Your task to perform on an android device: Toggle the flashlight Image 0: 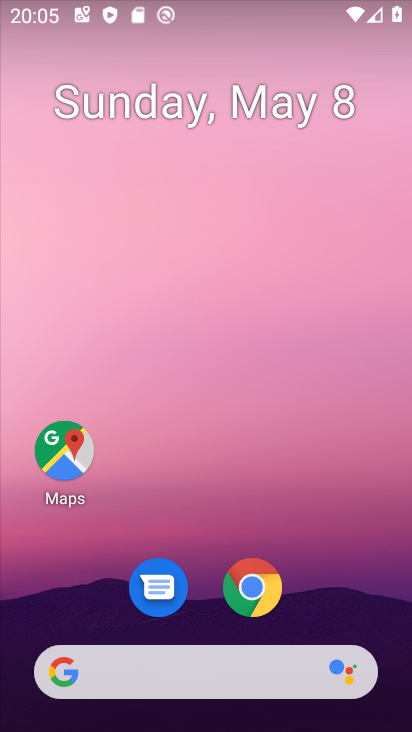
Step 0: drag from (314, 578) to (220, 37)
Your task to perform on an android device: Toggle the flashlight Image 1: 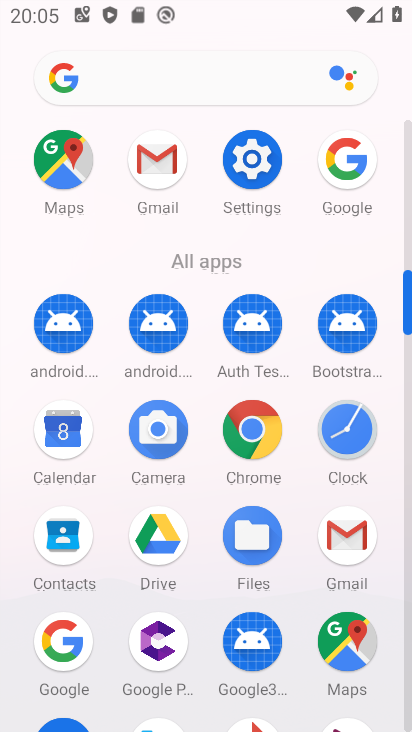
Step 1: click (250, 161)
Your task to perform on an android device: Toggle the flashlight Image 2: 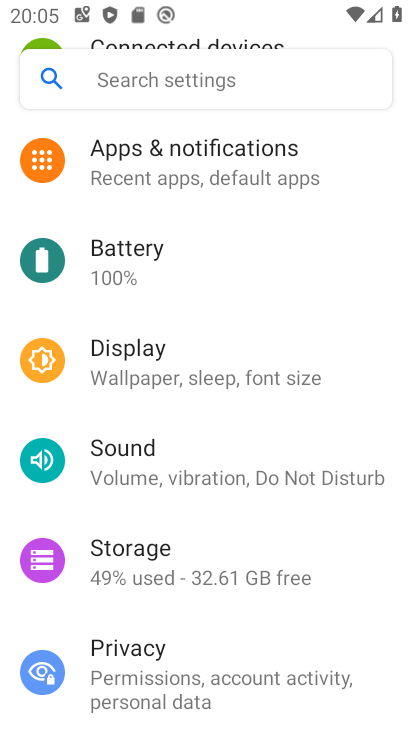
Step 2: click (103, 352)
Your task to perform on an android device: Toggle the flashlight Image 3: 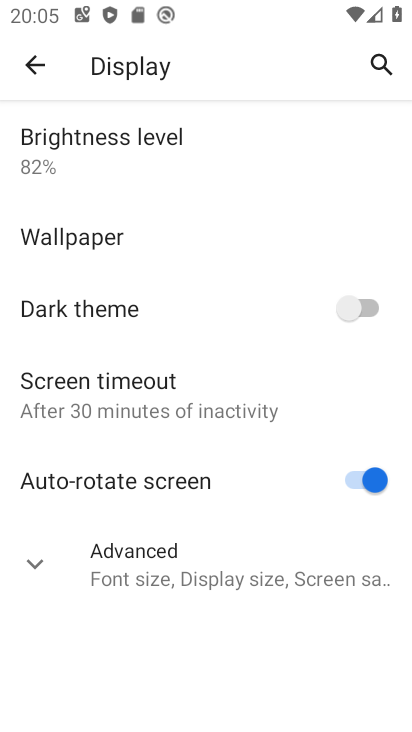
Step 3: press back button
Your task to perform on an android device: Toggle the flashlight Image 4: 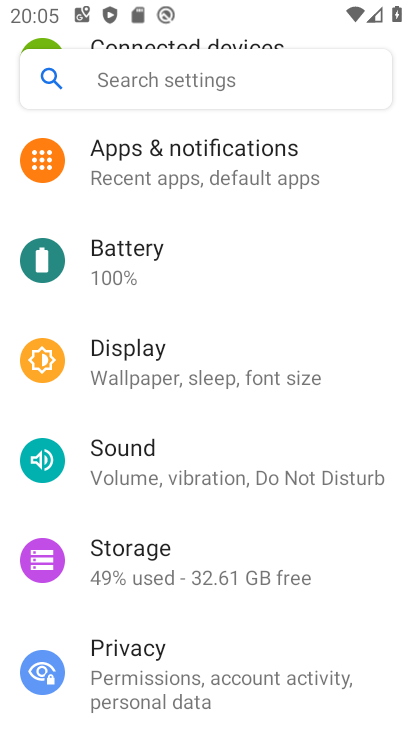
Step 4: drag from (137, 456) to (154, 397)
Your task to perform on an android device: Toggle the flashlight Image 5: 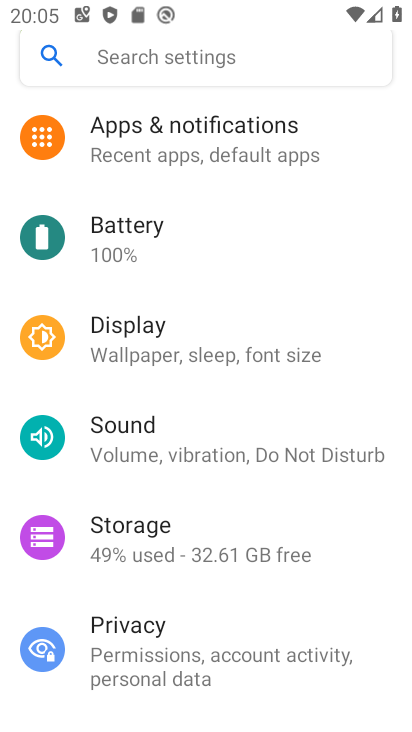
Step 5: drag from (223, 405) to (261, 331)
Your task to perform on an android device: Toggle the flashlight Image 6: 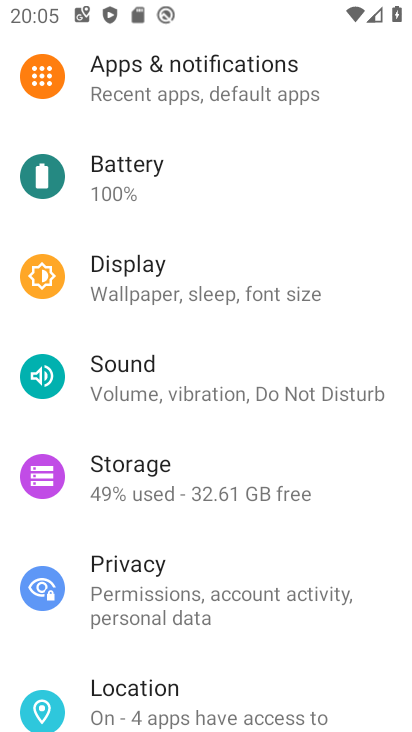
Step 6: drag from (216, 444) to (263, 357)
Your task to perform on an android device: Toggle the flashlight Image 7: 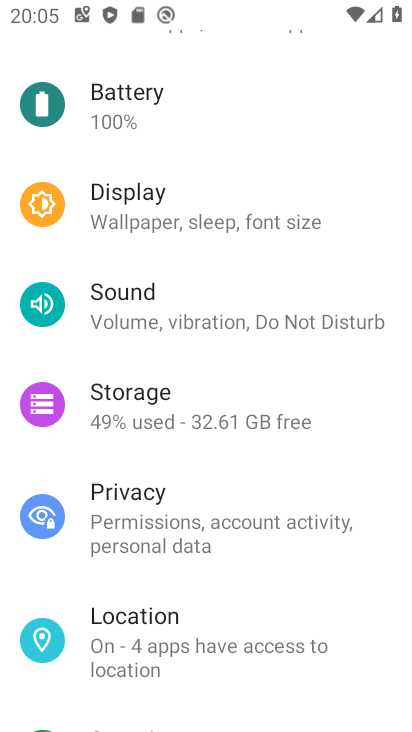
Step 7: drag from (202, 519) to (293, 358)
Your task to perform on an android device: Toggle the flashlight Image 8: 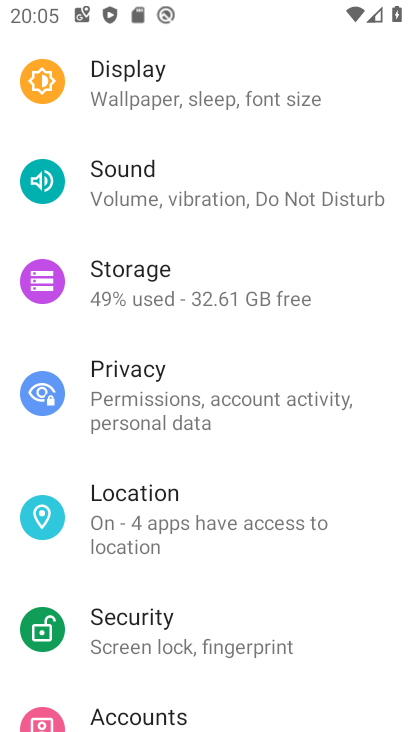
Step 8: drag from (222, 499) to (274, 354)
Your task to perform on an android device: Toggle the flashlight Image 9: 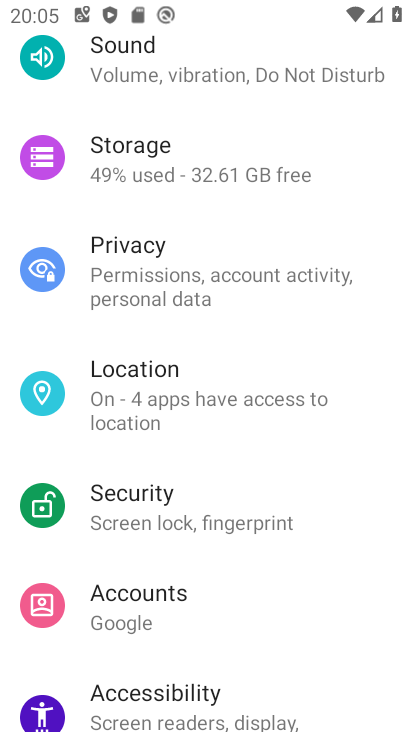
Step 9: drag from (193, 586) to (285, 387)
Your task to perform on an android device: Toggle the flashlight Image 10: 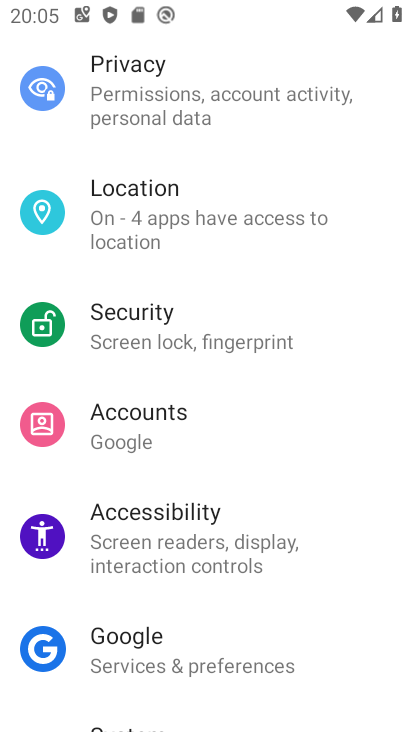
Step 10: click (216, 514)
Your task to perform on an android device: Toggle the flashlight Image 11: 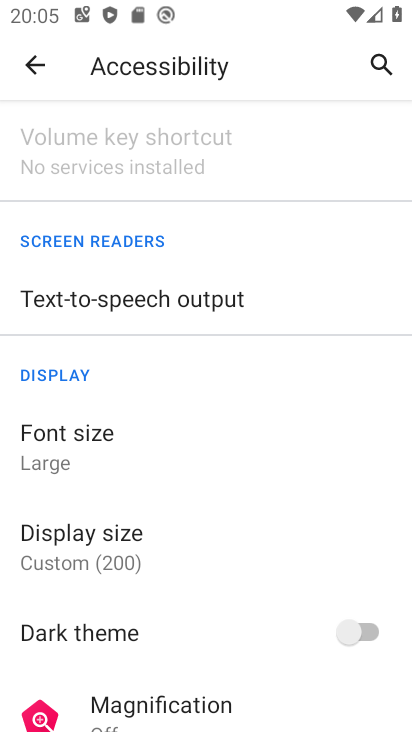
Step 11: task complete